Your task to perform on an android device: Is it going to rain tomorrow? Image 0: 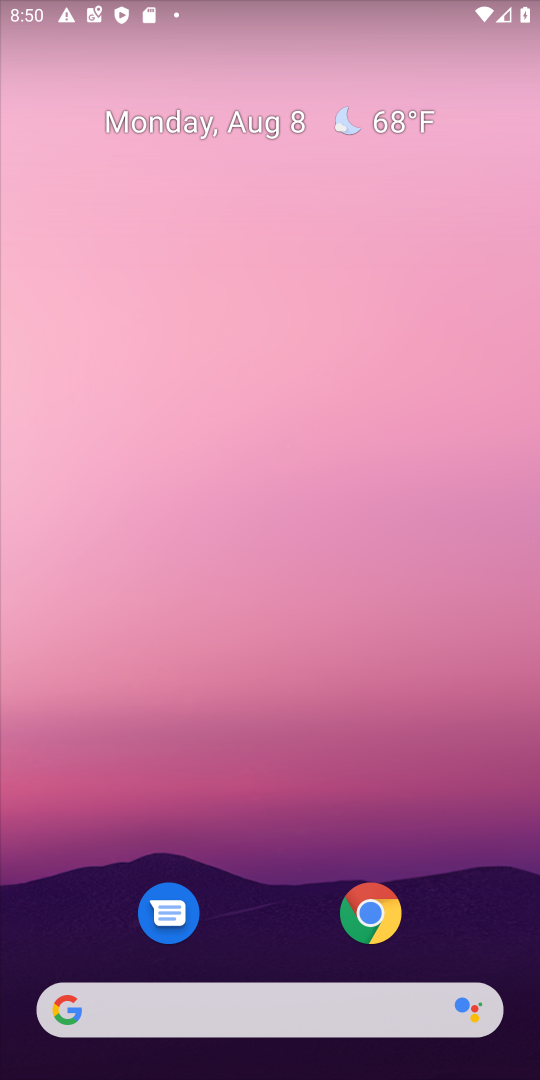
Step 0: drag from (220, 1012) to (236, 120)
Your task to perform on an android device: Is it going to rain tomorrow? Image 1: 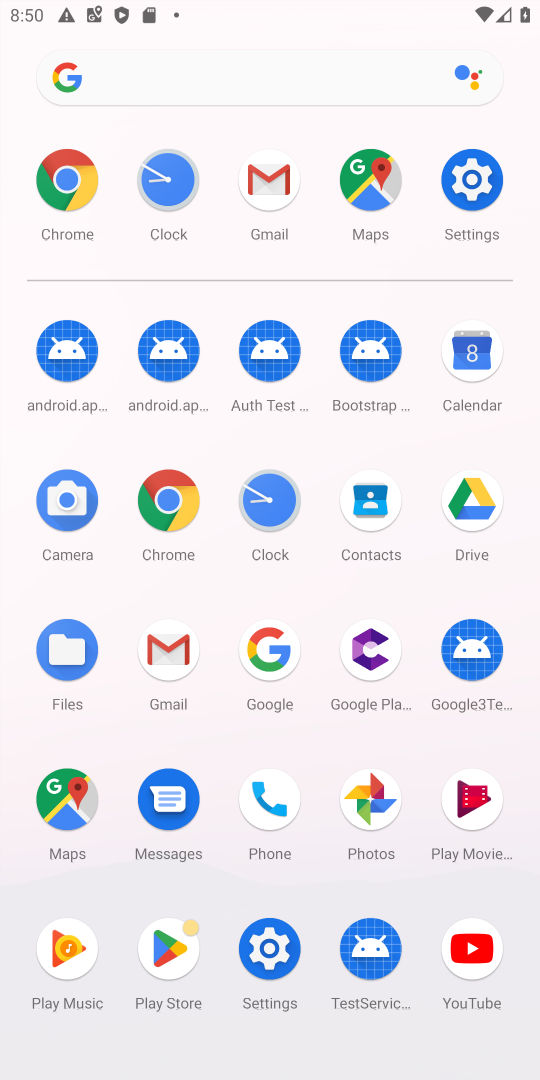
Step 1: click (268, 647)
Your task to perform on an android device: Is it going to rain tomorrow? Image 2: 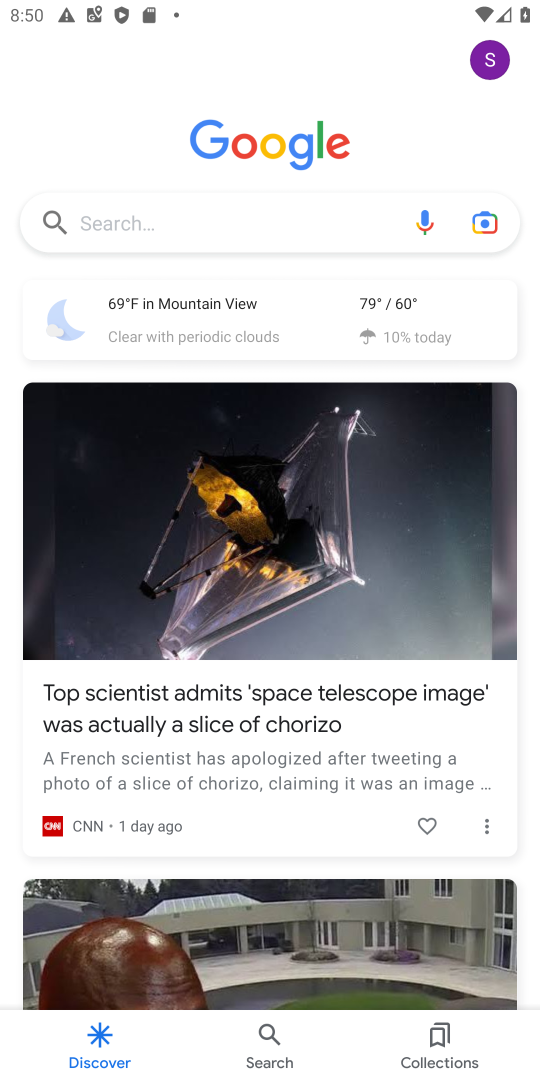
Step 2: click (249, 234)
Your task to perform on an android device: Is it going to rain tomorrow? Image 3: 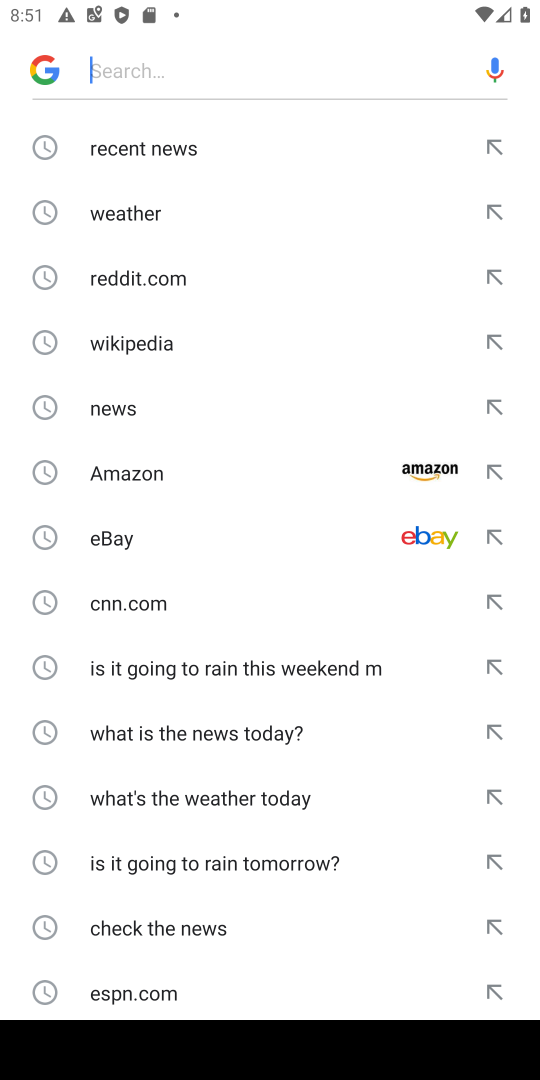
Step 3: type "Is it going to rain tomorrow?"
Your task to perform on an android device: Is it going to rain tomorrow? Image 4: 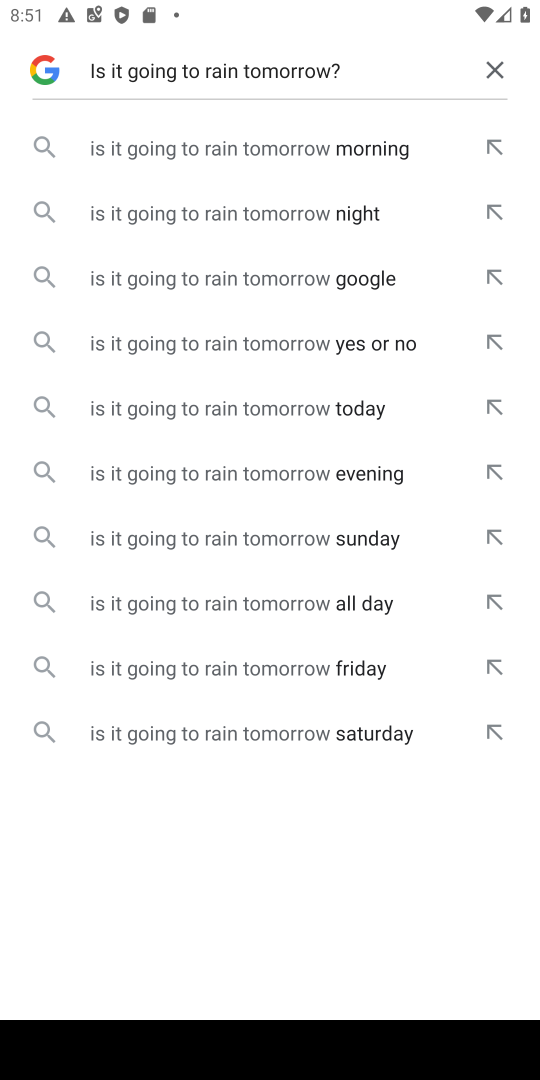
Step 4: click (234, 149)
Your task to perform on an android device: Is it going to rain tomorrow? Image 5: 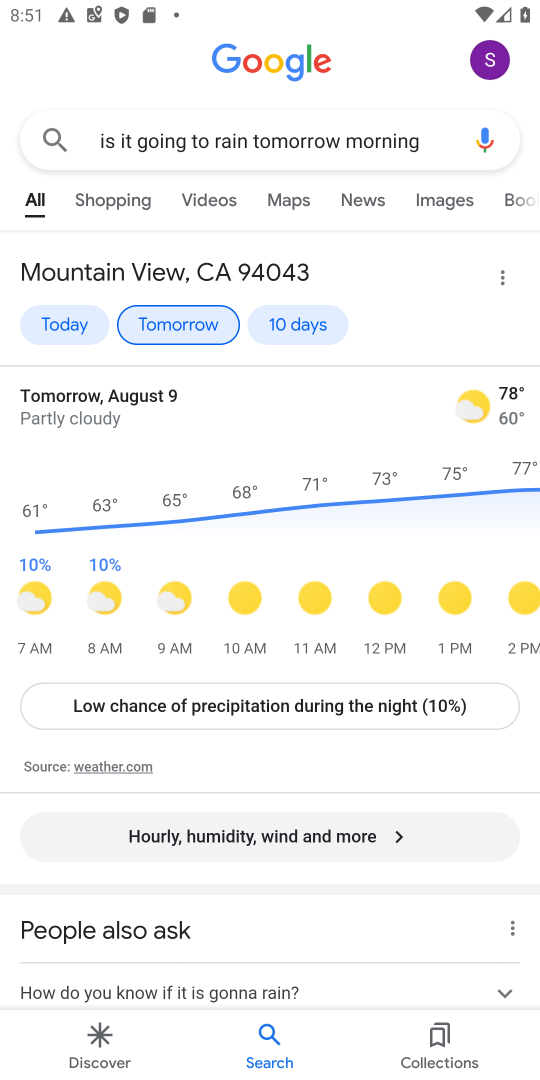
Step 5: task complete